Your task to perform on an android device: turn off location Image 0: 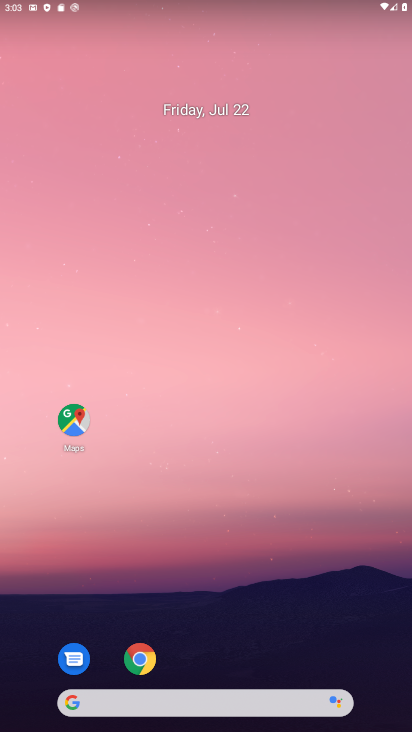
Step 0: drag from (214, 648) to (266, 162)
Your task to perform on an android device: turn off location Image 1: 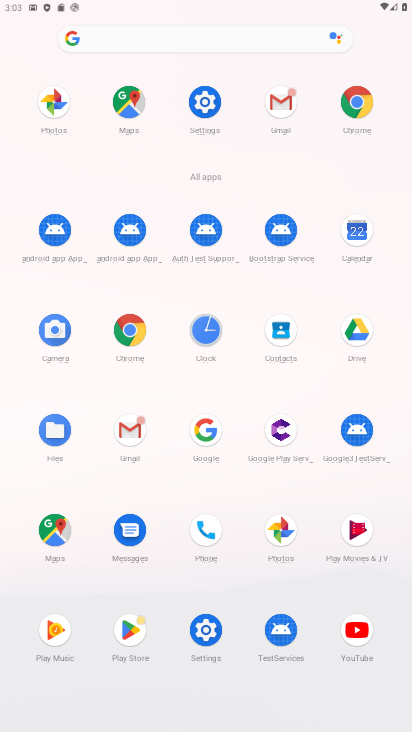
Step 1: click (200, 125)
Your task to perform on an android device: turn off location Image 2: 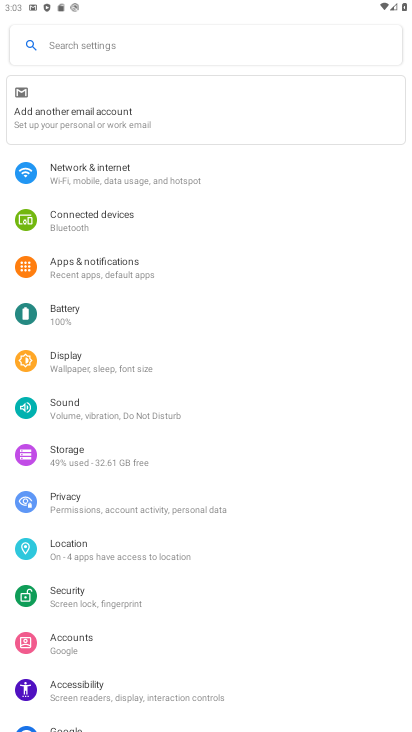
Step 2: click (60, 563)
Your task to perform on an android device: turn off location Image 3: 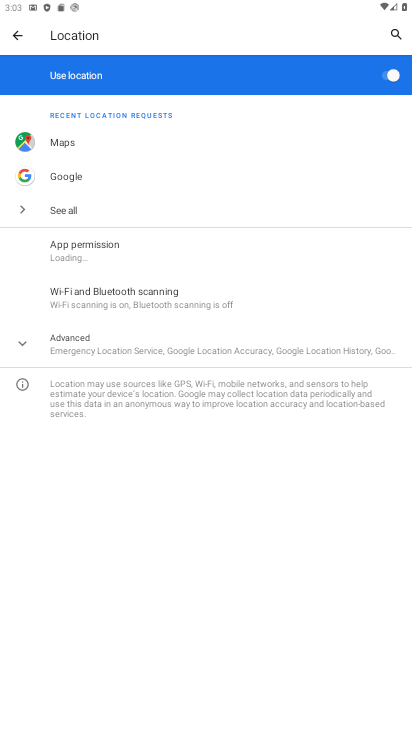
Step 3: click (389, 80)
Your task to perform on an android device: turn off location Image 4: 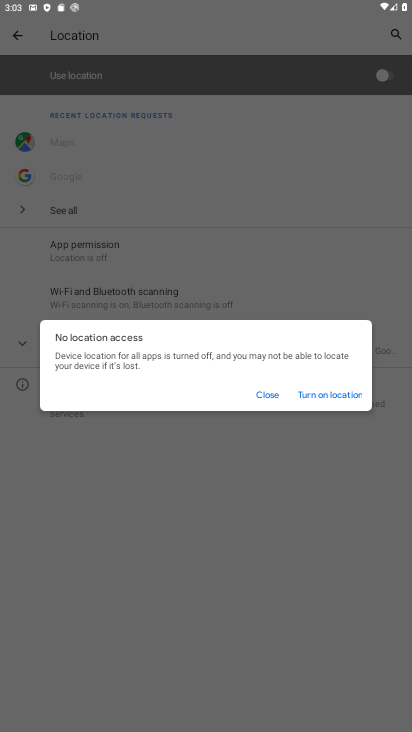
Step 4: task complete